Your task to perform on an android device: Go to display settings Image 0: 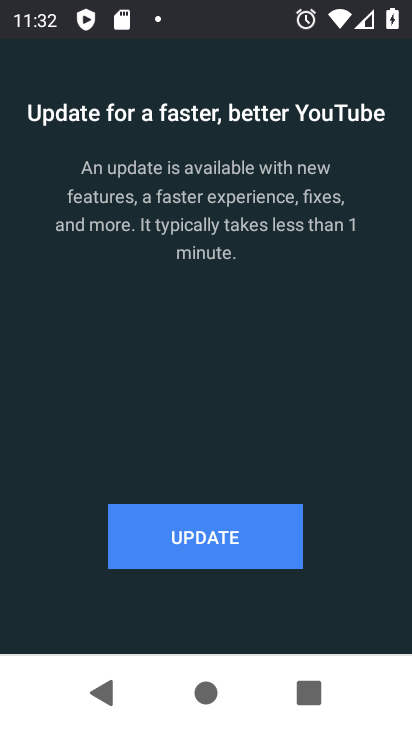
Step 0: press home button
Your task to perform on an android device: Go to display settings Image 1: 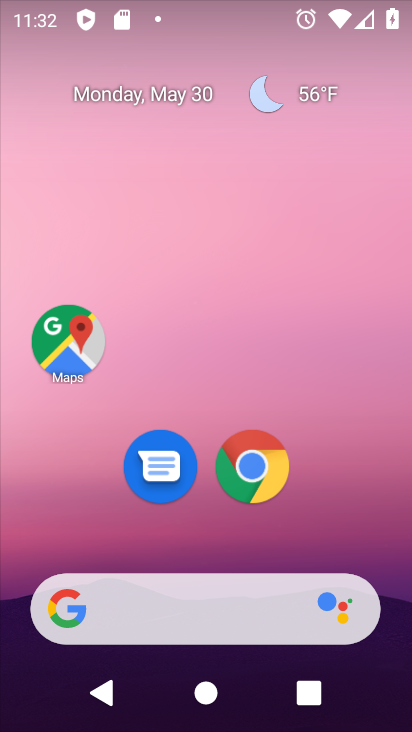
Step 1: drag from (218, 600) to (195, 103)
Your task to perform on an android device: Go to display settings Image 2: 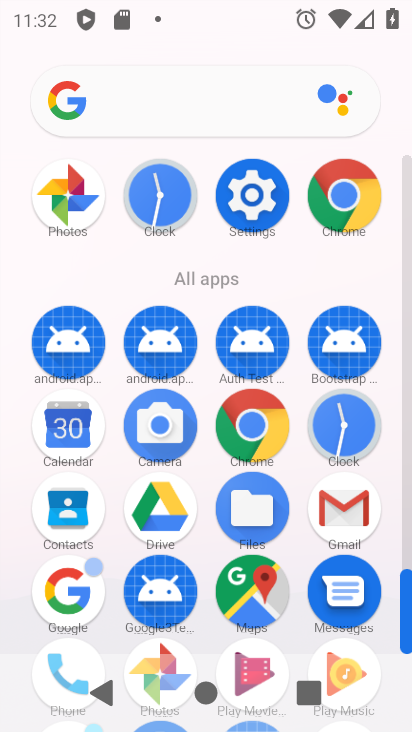
Step 2: click (266, 177)
Your task to perform on an android device: Go to display settings Image 3: 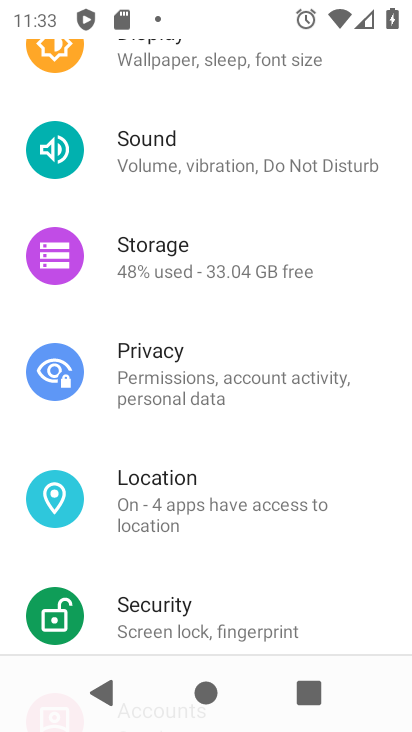
Step 3: drag from (185, 197) to (124, 728)
Your task to perform on an android device: Go to display settings Image 4: 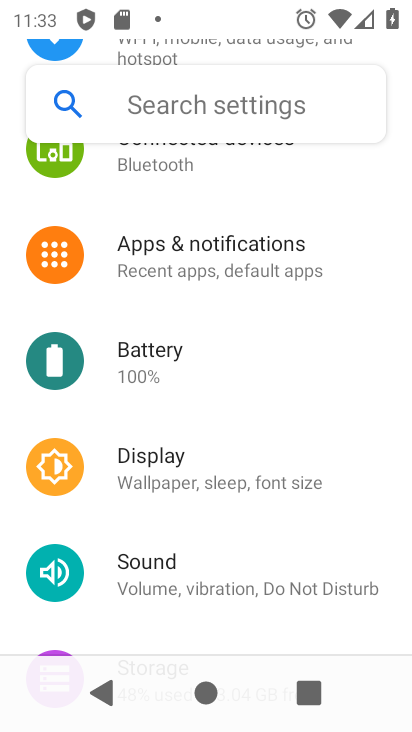
Step 4: click (147, 429)
Your task to perform on an android device: Go to display settings Image 5: 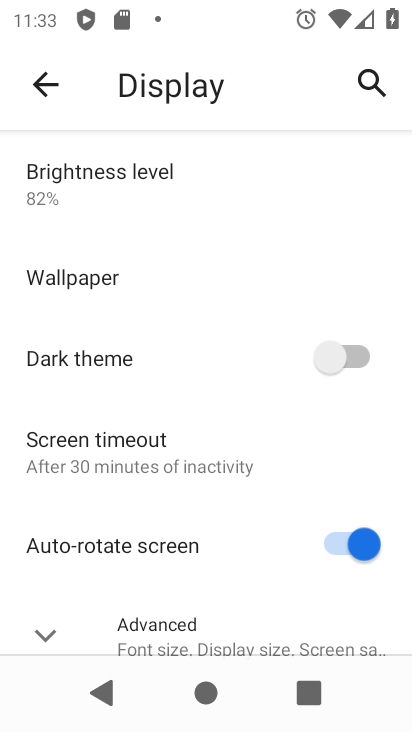
Step 5: task complete